Your task to perform on an android device: open a bookmark in the chrome app Image 0: 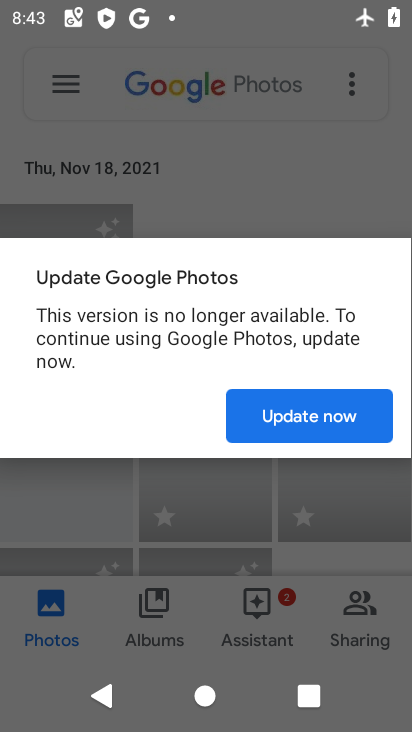
Step 0: press home button
Your task to perform on an android device: open a bookmark in the chrome app Image 1: 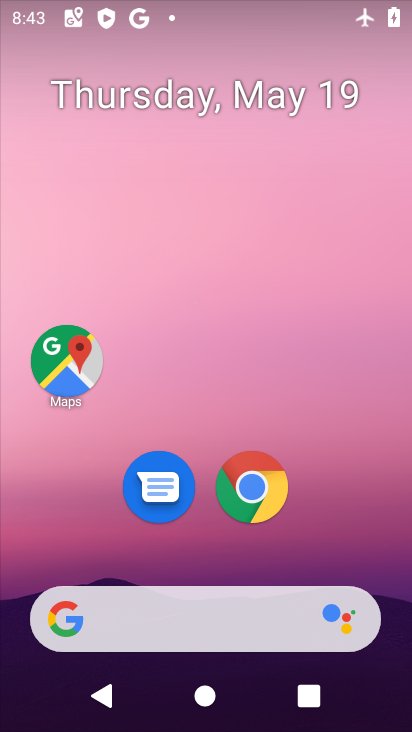
Step 1: click (245, 504)
Your task to perform on an android device: open a bookmark in the chrome app Image 2: 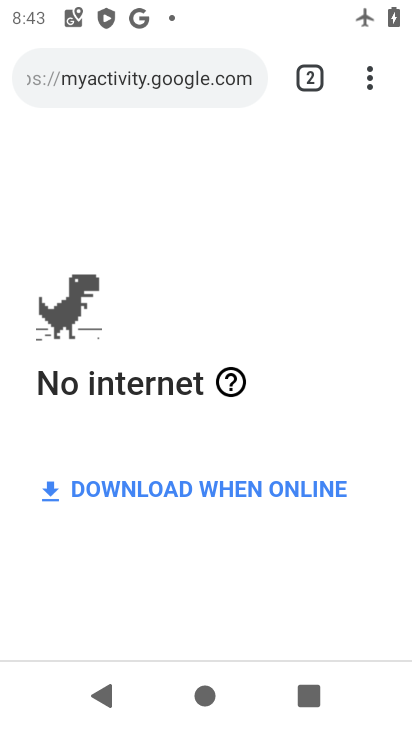
Step 2: click (364, 84)
Your task to perform on an android device: open a bookmark in the chrome app Image 3: 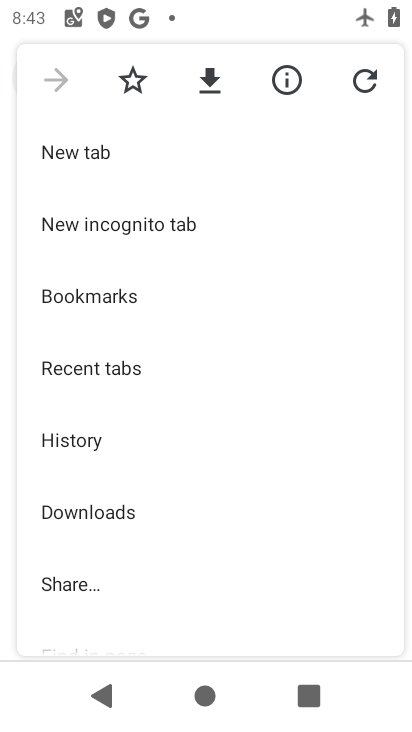
Step 3: click (98, 309)
Your task to perform on an android device: open a bookmark in the chrome app Image 4: 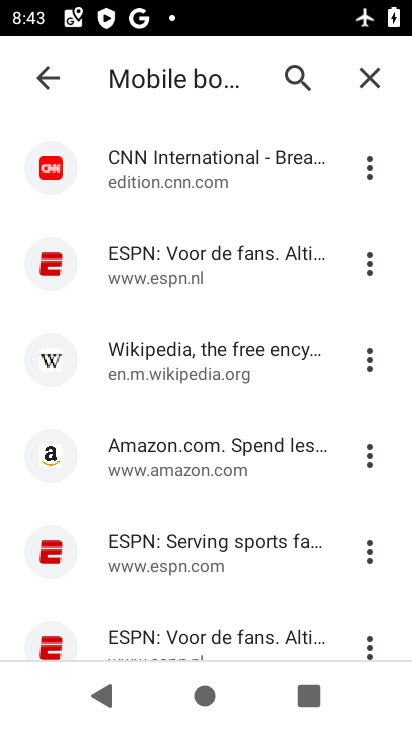
Step 4: task complete